Your task to perform on an android device: Open the Play Movies app and select the watchlist tab. Image 0: 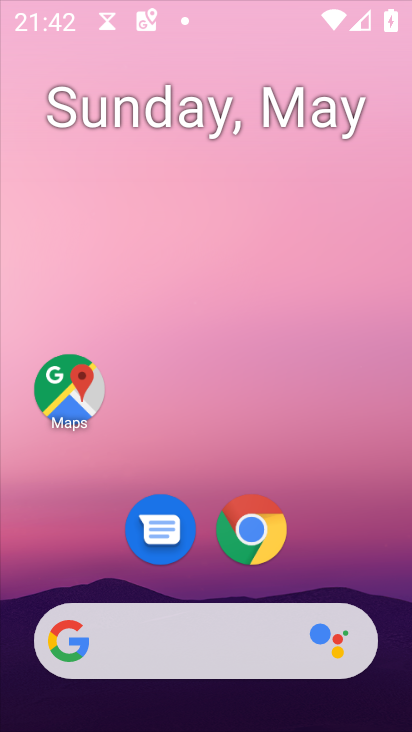
Step 0: click (1, 724)
Your task to perform on an android device: Open the Play Movies app and select the watchlist tab. Image 1: 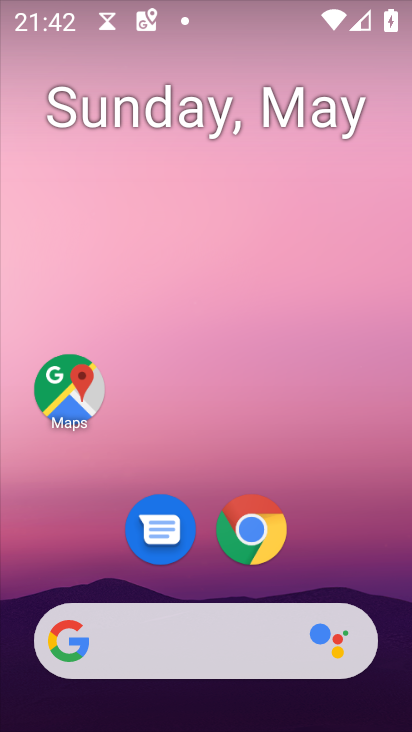
Step 1: drag from (308, 563) to (295, 0)
Your task to perform on an android device: Open the Play Movies app and select the watchlist tab. Image 2: 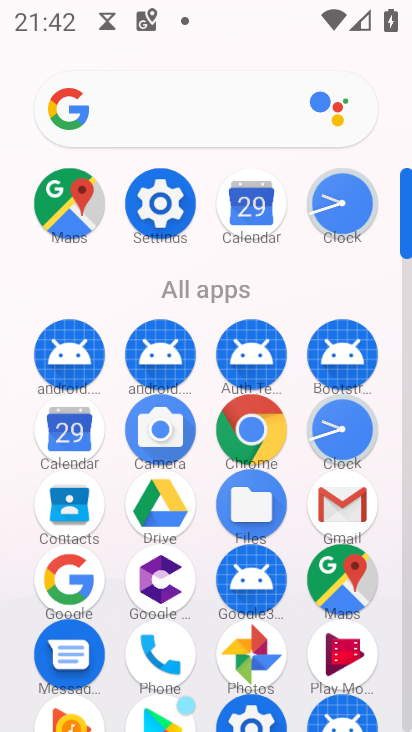
Step 2: click (341, 651)
Your task to perform on an android device: Open the Play Movies app and select the watchlist tab. Image 3: 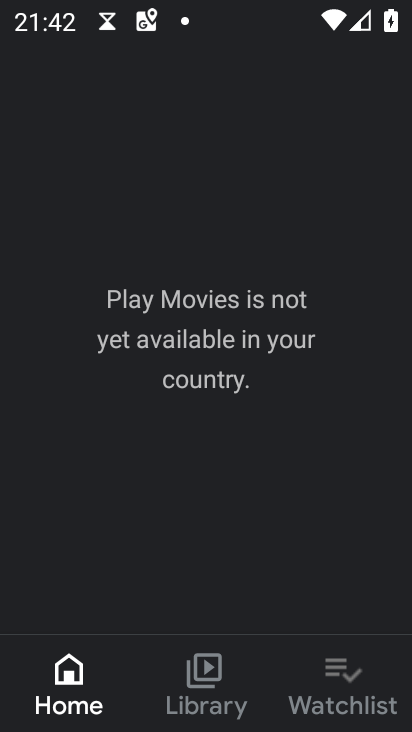
Step 3: click (335, 672)
Your task to perform on an android device: Open the Play Movies app and select the watchlist tab. Image 4: 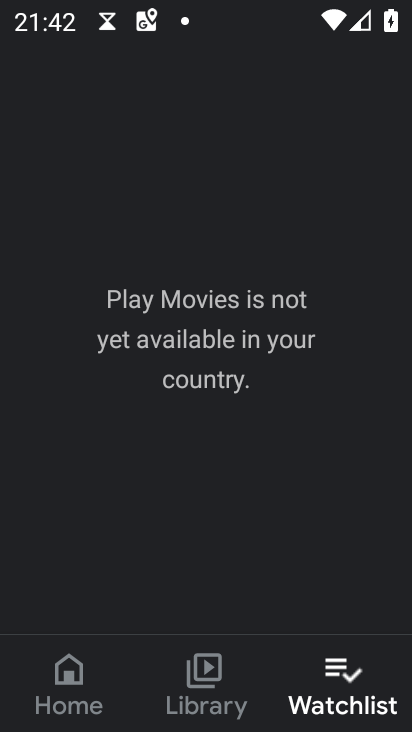
Step 4: task complete